Your task to perform on an android device: open chrome and create a bookmark for the current page Image 0: 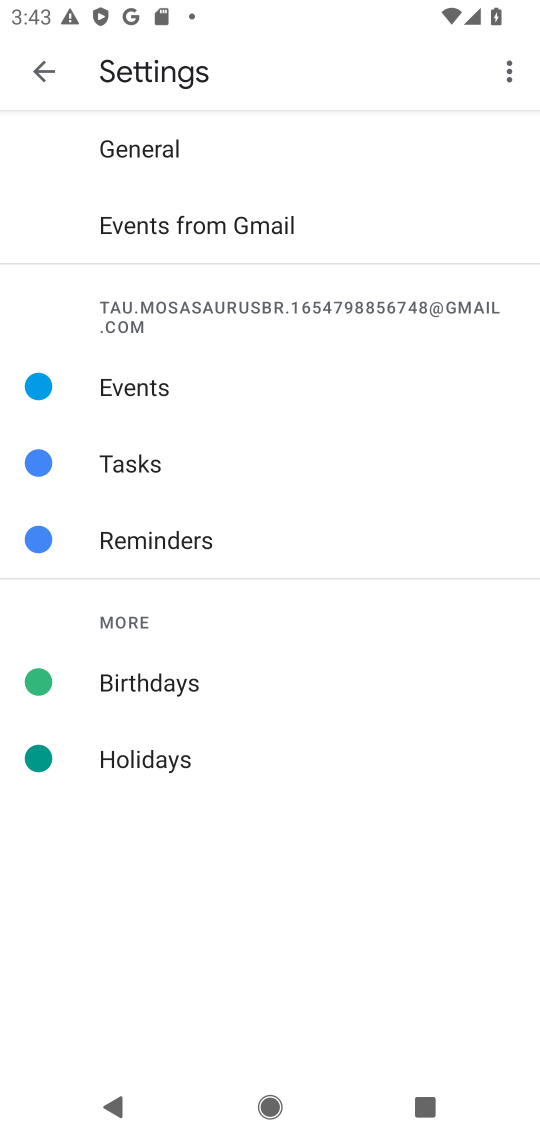
Step 0: press home button
Your task to perform on an android device: open chrome and create a bookmark for the current page Image 1: 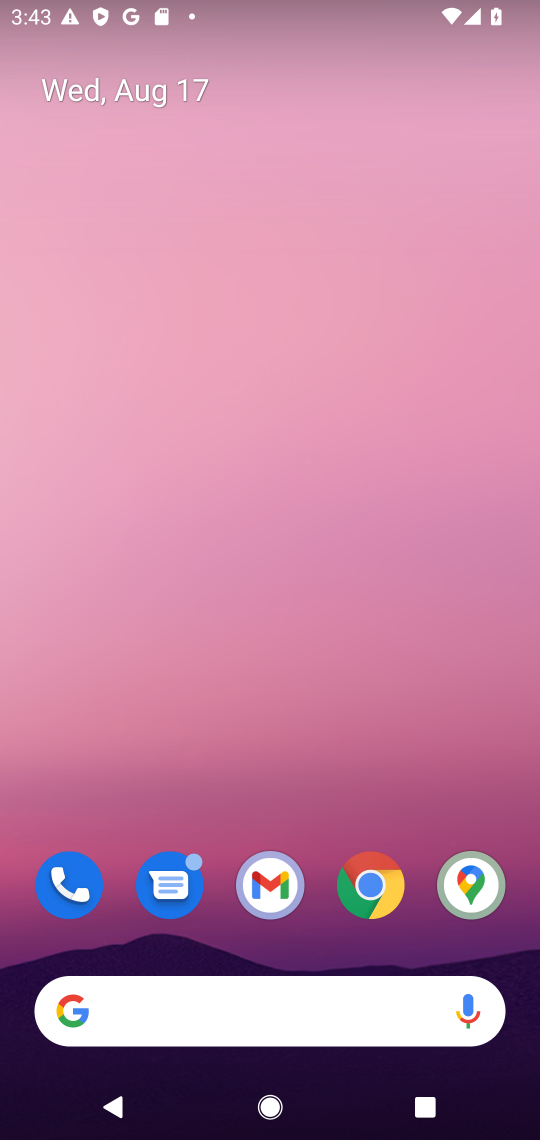
Step 1: click (371, 887)
Your task to perform on an android device: open chrome and create a bookmark for the current page Image 2: 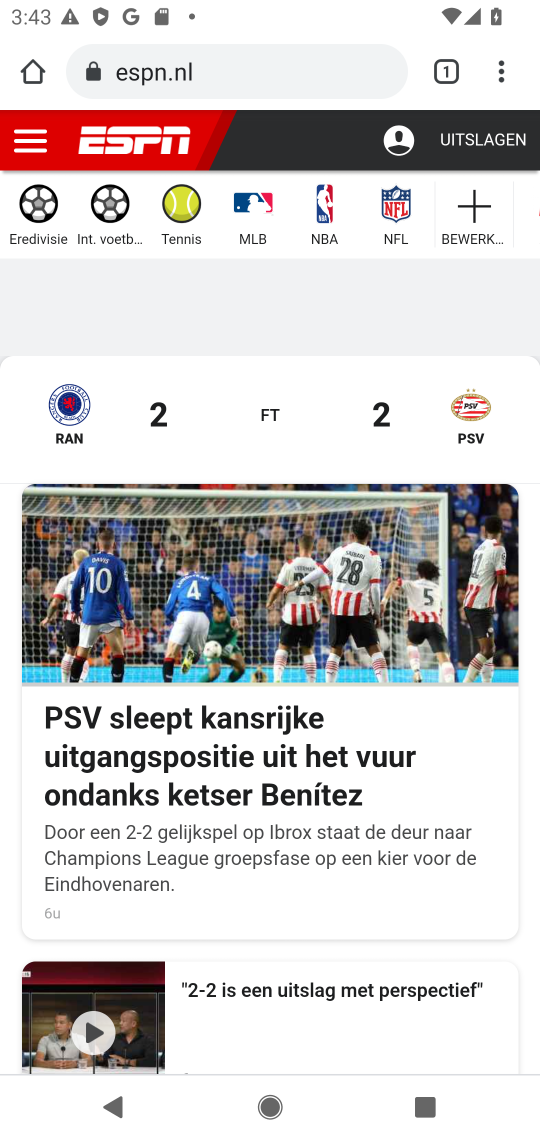
Step 2: click (522, 83)
Your task to perform on an android device: open chrome and create a bookmark for the current page Image 3: 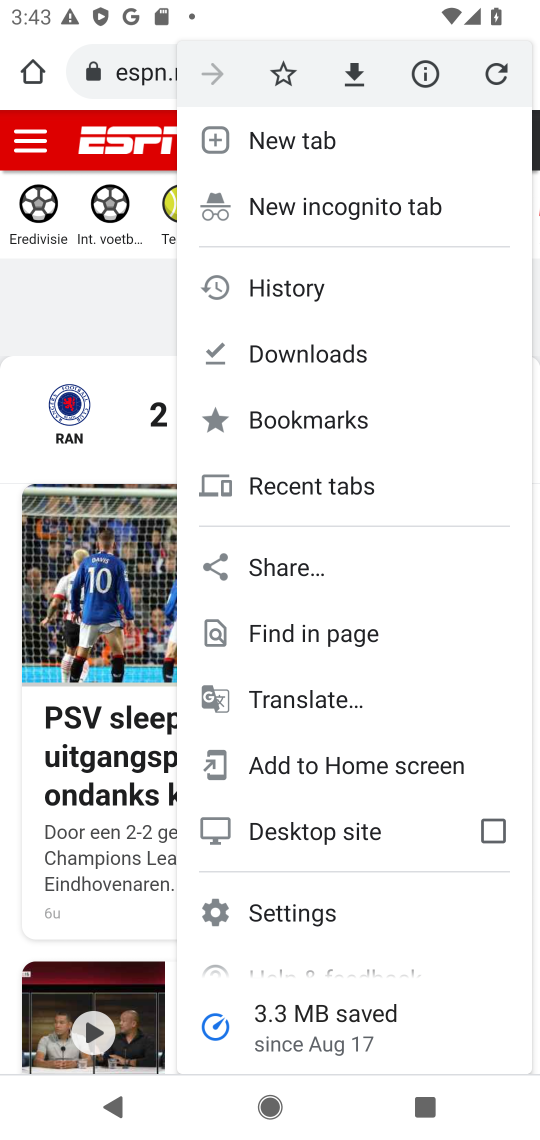
Step 3: click (287, 76)
Your task to perform on an android device: open chrome and create a bookmark for the current page Image 4: 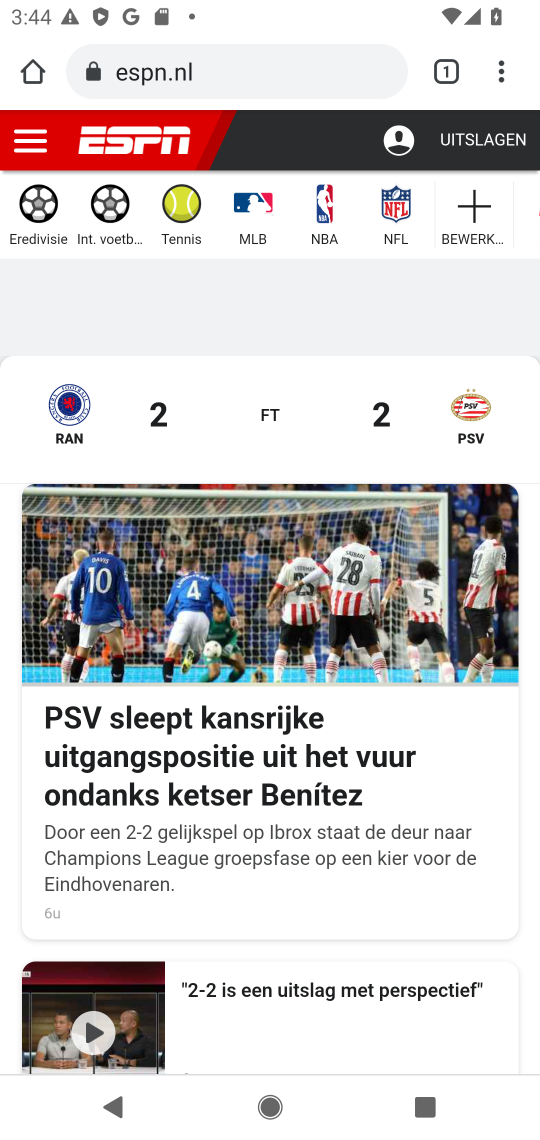
Step 4: task complete